Your task to perform on an android device: Open Google Chrome and open the bookmarks view Image 0: 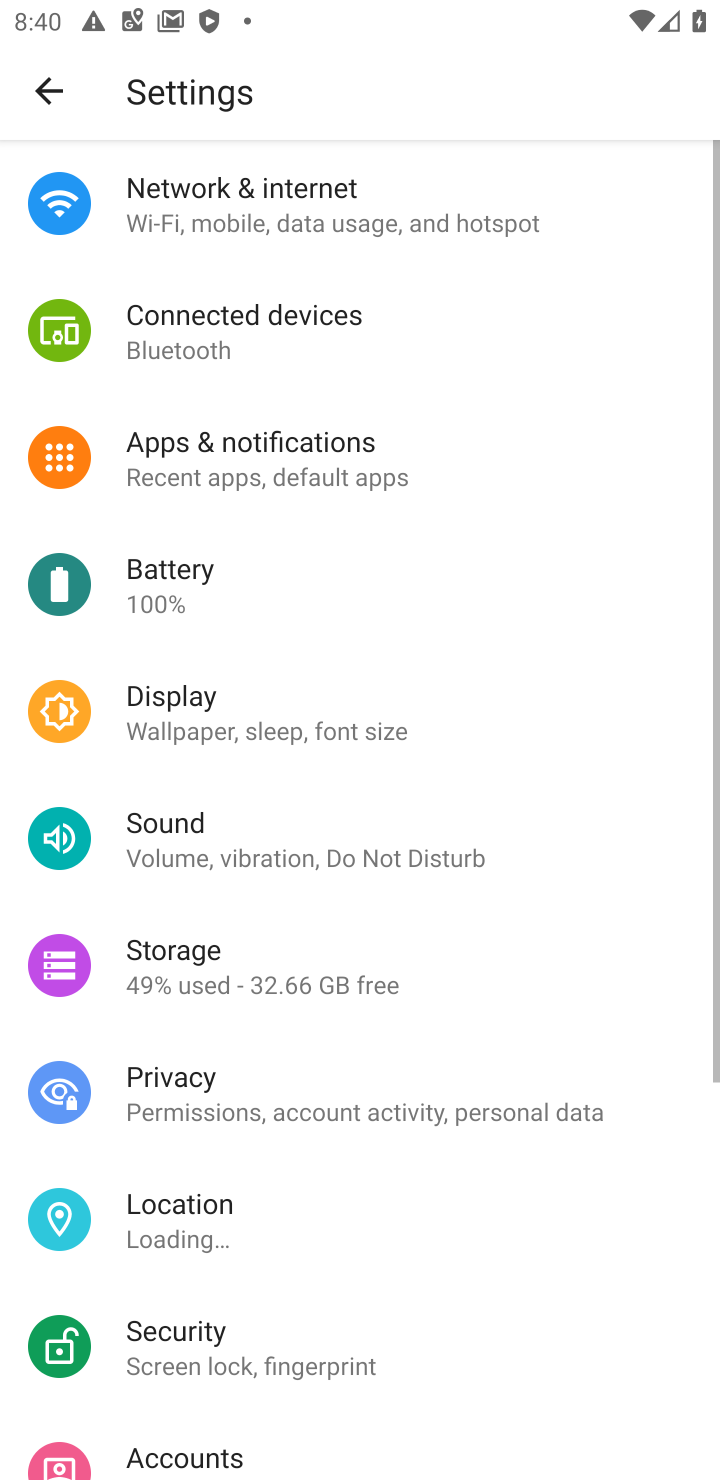
Step 0: press home button
Your task to perform on an android device: Open Google Chrome and open the bookmarks view Image 1: 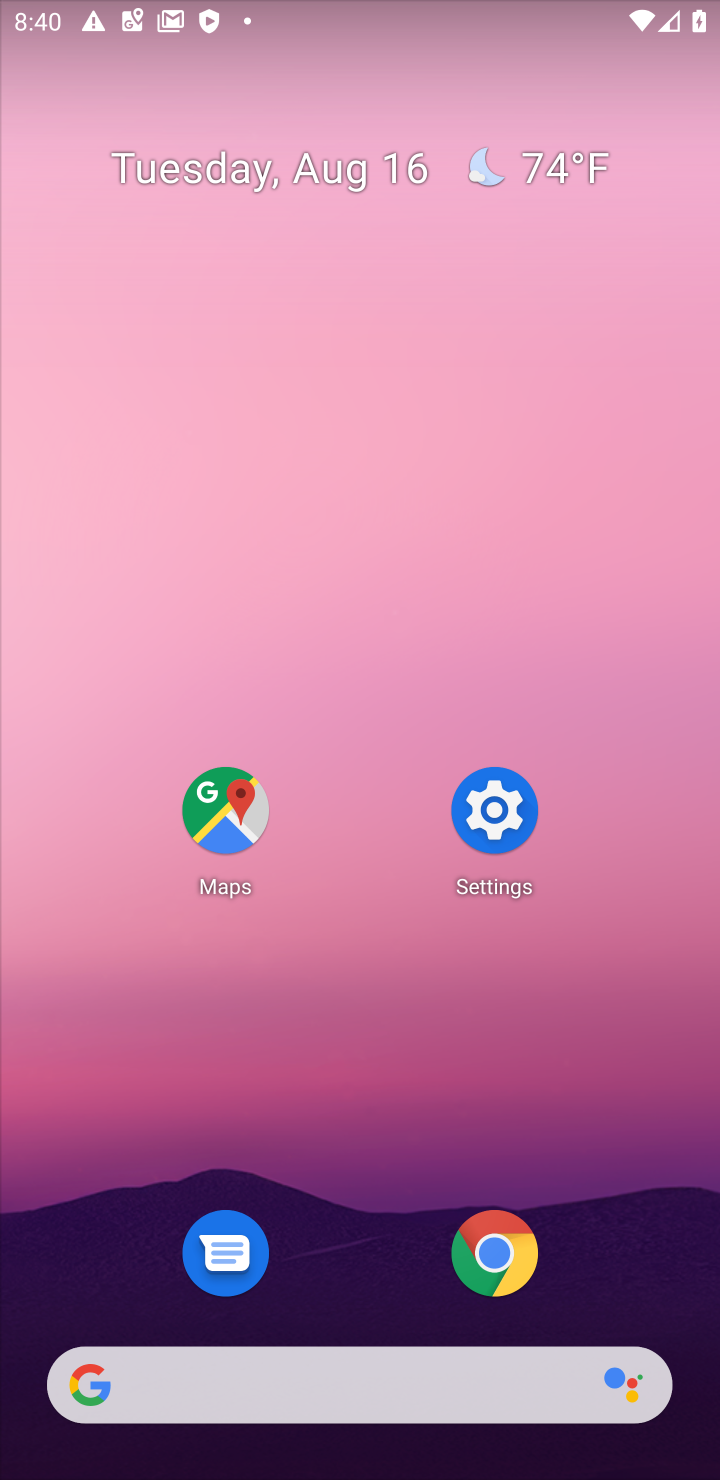
Step 1: click (470, 1259)
Your task to perform on an android device: Open Google Chrome and open the bookmarks view Image 2: 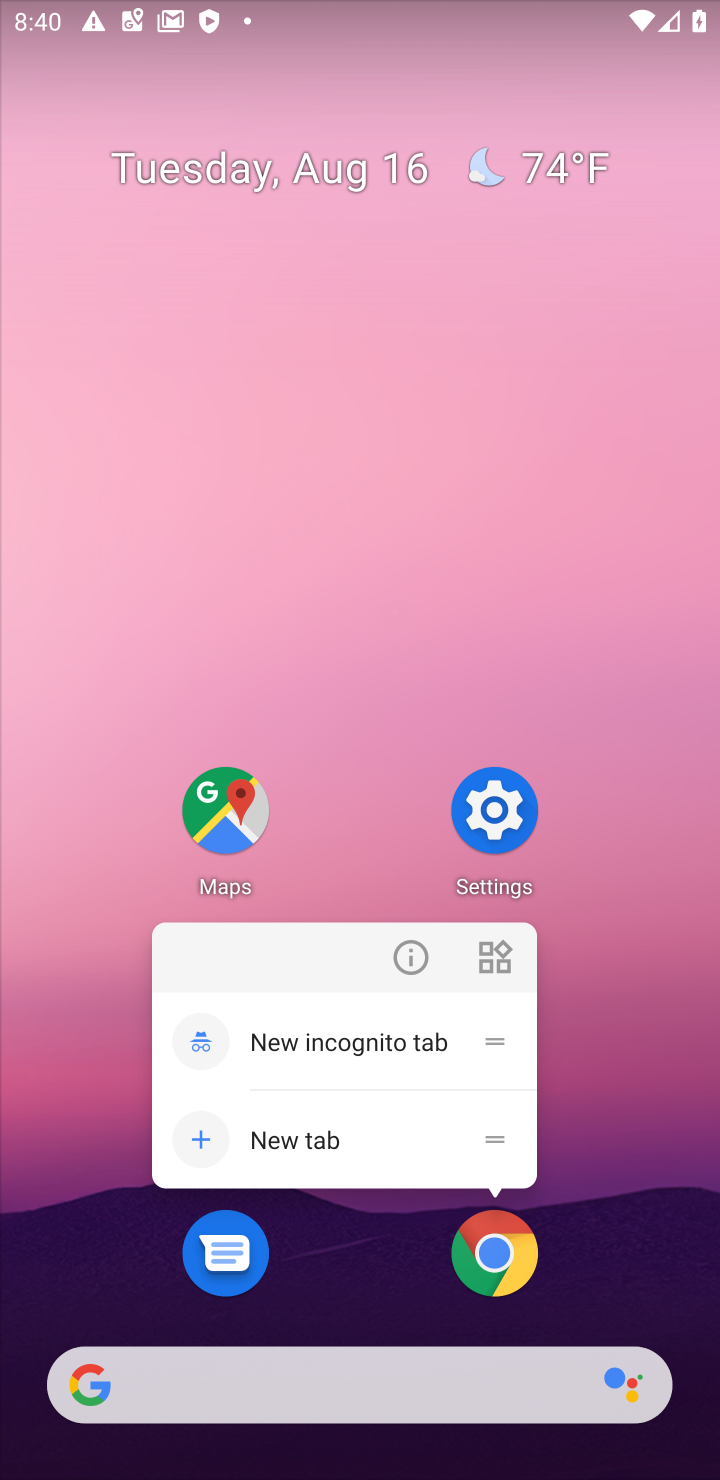
Step 2: click (491, 1255)
Your task to perform on an android device: Open Google Chrome and open the bookmarks view Image 3: 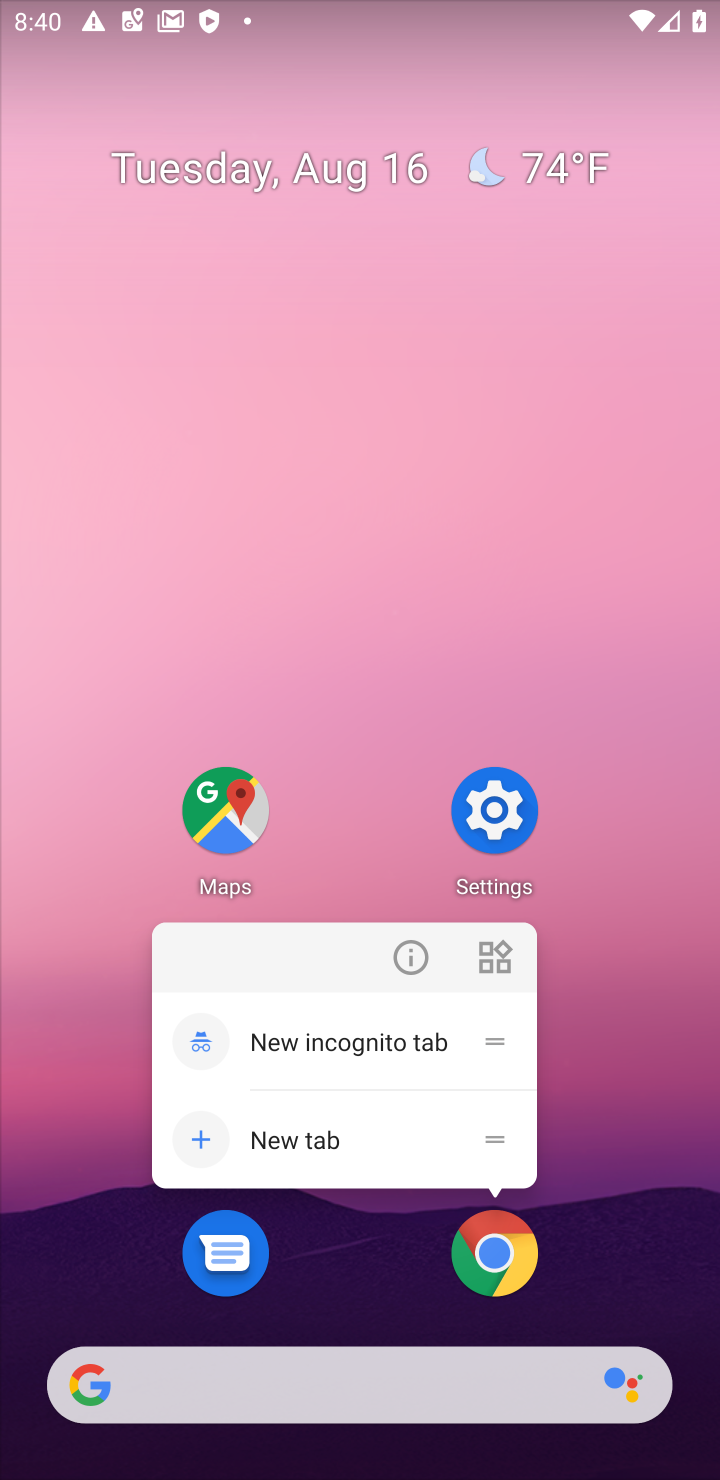
Step 3: click (497, 1255)
Your task to perform on an android device: Open Google Chrome and open the bookmarks view Image 4: 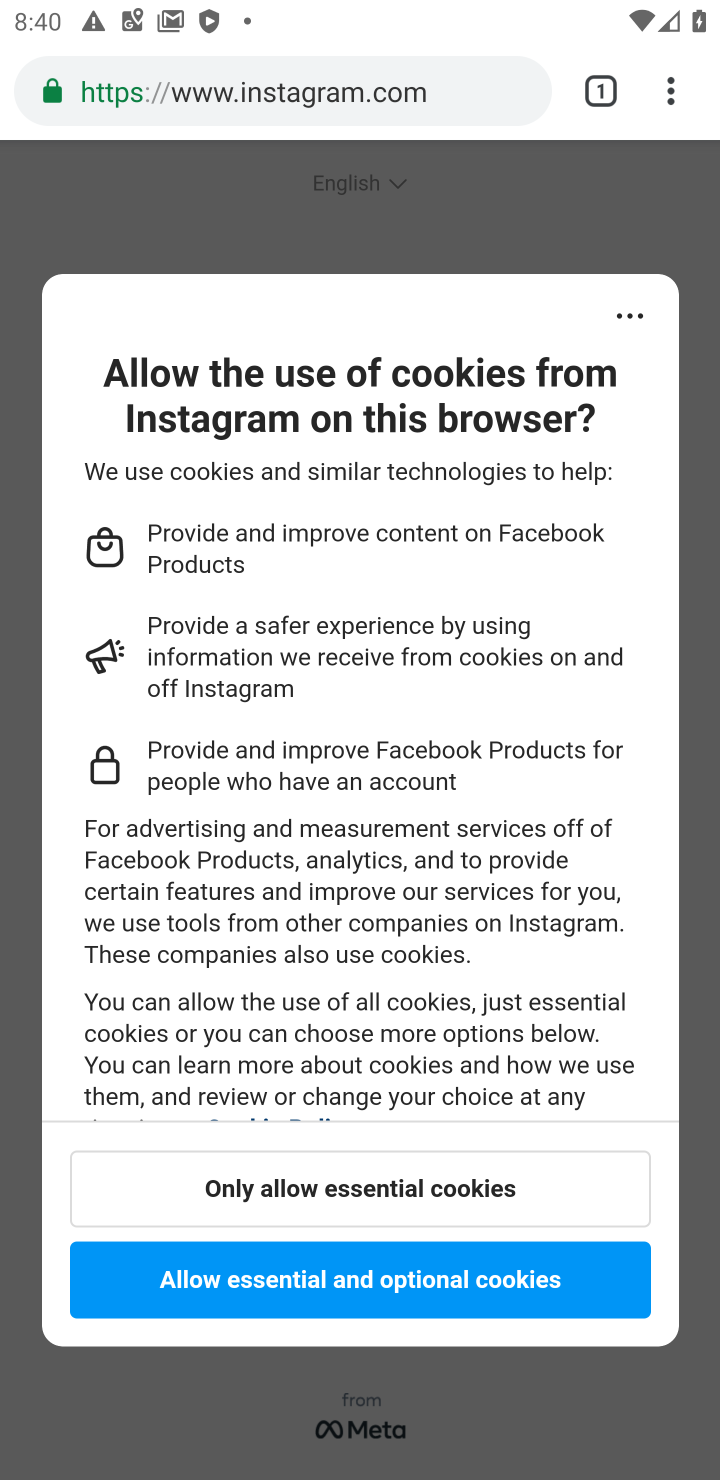
Step 4: task complete